Your task to perform on an android device: clear history in the chrome app Image 0: 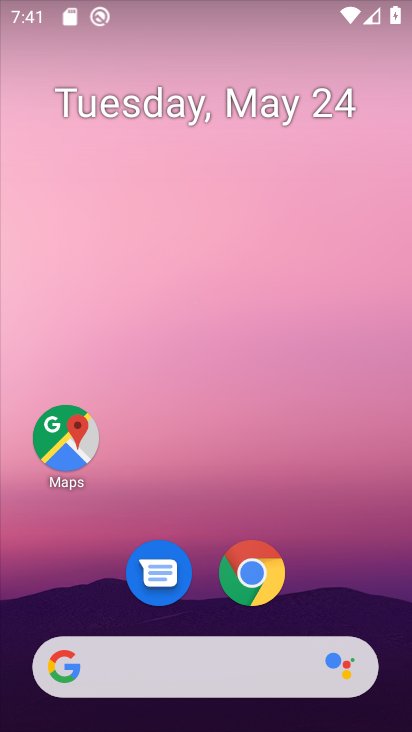
Step 0: drag from (337, 564) to (352, 0)
Your task to perform on an android device: clear history in the chrome app Image 1: 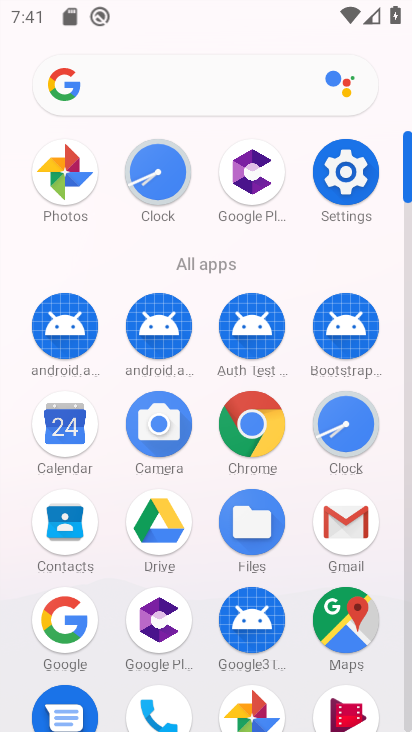
Step 1: click (261, 417)
Your task to perform on an android device: clear history in the chrome app Image 2: 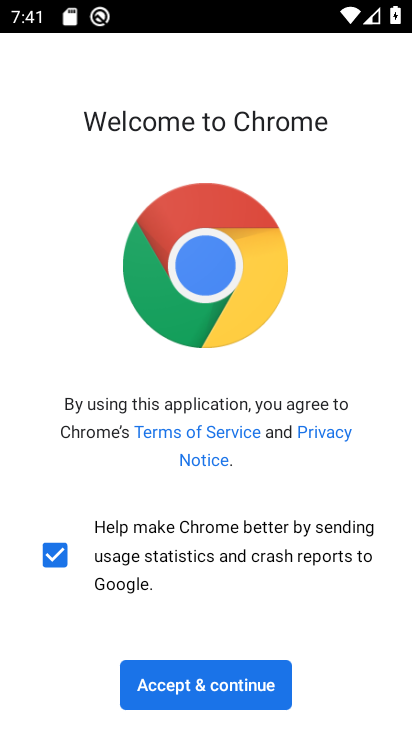
Step 2: click (193, 665)
Your task to perform on an android device: clear history in the chrome app Image 3: 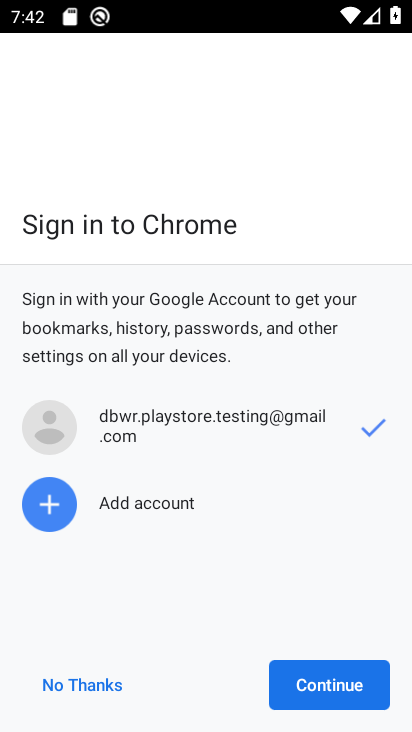
Step 3: click (70, 688)
Your task to perform on an android device: clear history in the chrome app Image 4: 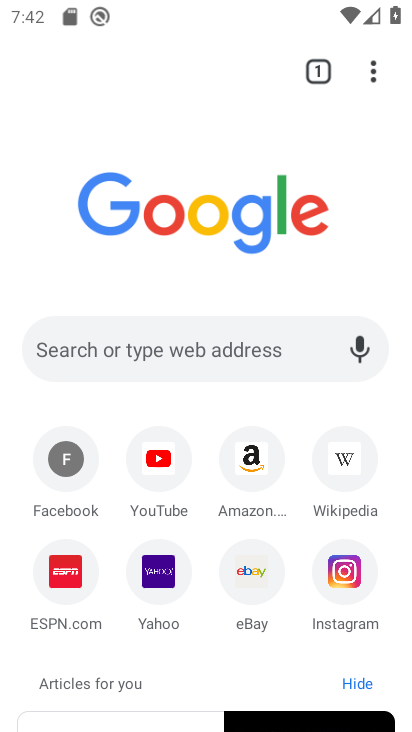
Step 4: task complete